Your task to perform on an android device: create a new album in the google photos Image 0: 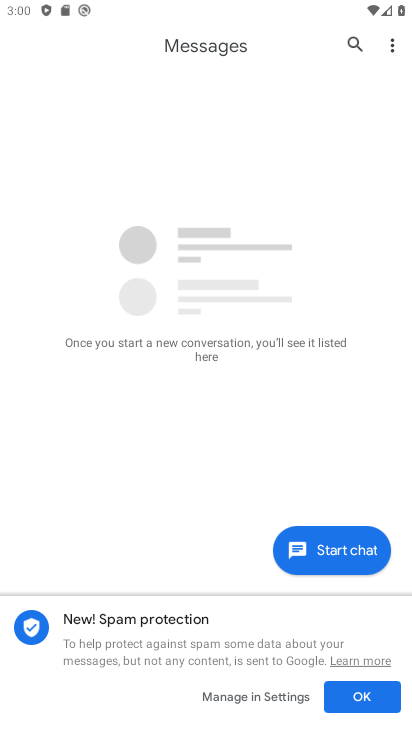
Step 0: press home button
Your task to perform on an android device: create a new album in the google photos Image 1: 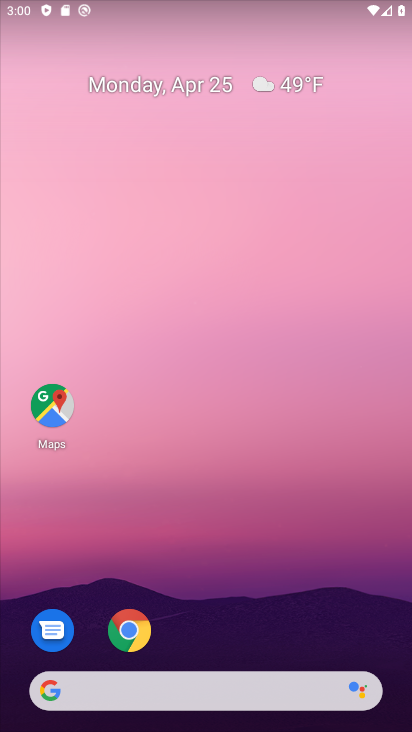
Step 1: drag from (240, 631) to (175, 6)
Your task to perform on an android device: create a new album in the google photos Image 2: 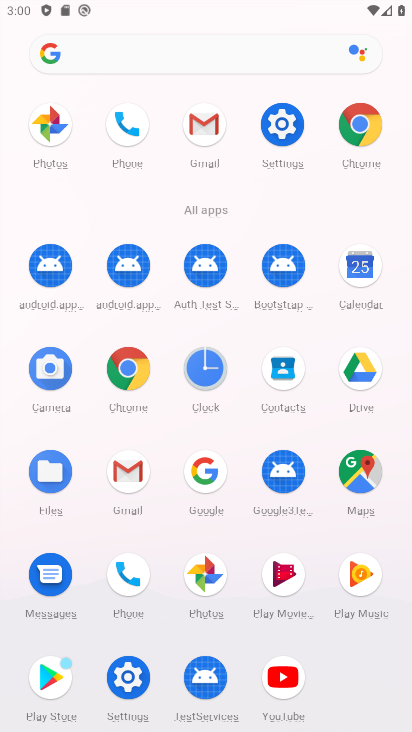
Step 2: click (43, 129)
Your task to perform on an android device: create a new album in the google photos Image 3: 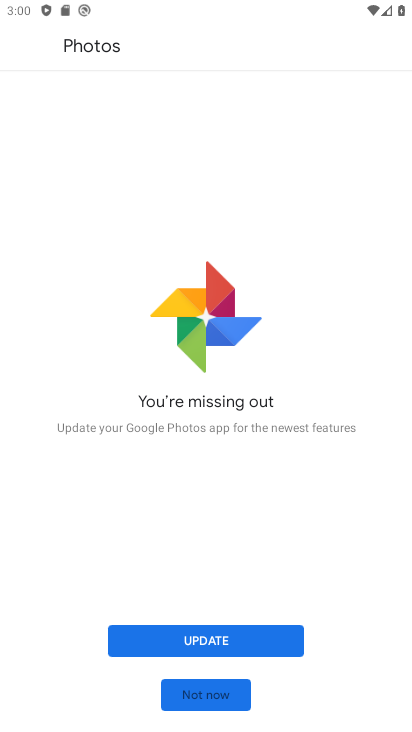
Step 3: click (239, 638)
Your task to perform on an android device: create a new album in the google photos Image 4: 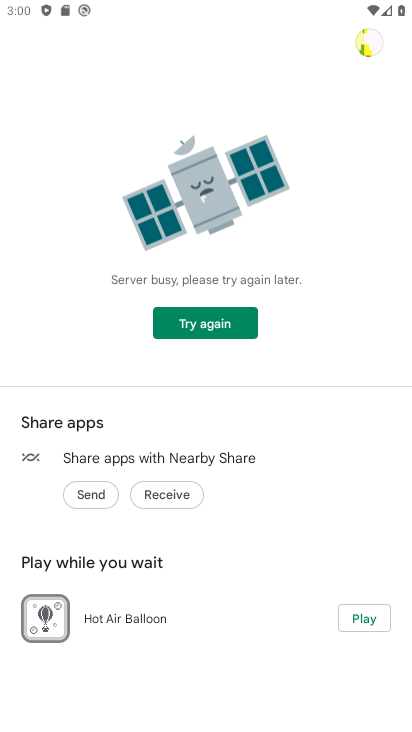
Step 4: click (225, 321)
Your task to perform on an android device: create a new album in the google photos Image 5: 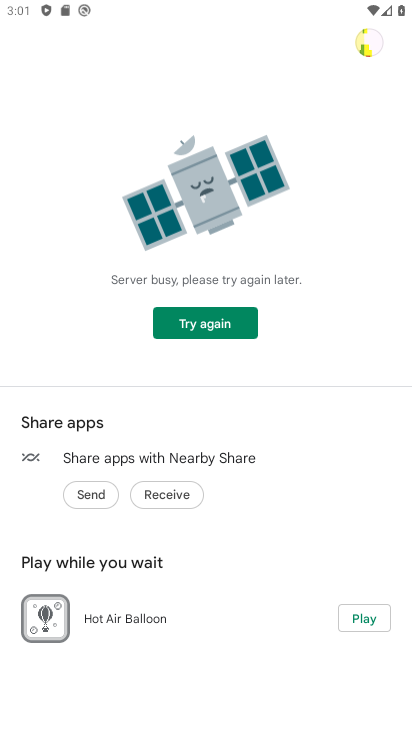
Step 5: task complete